Your task to perform on an android device: Open notification settings Image 0: 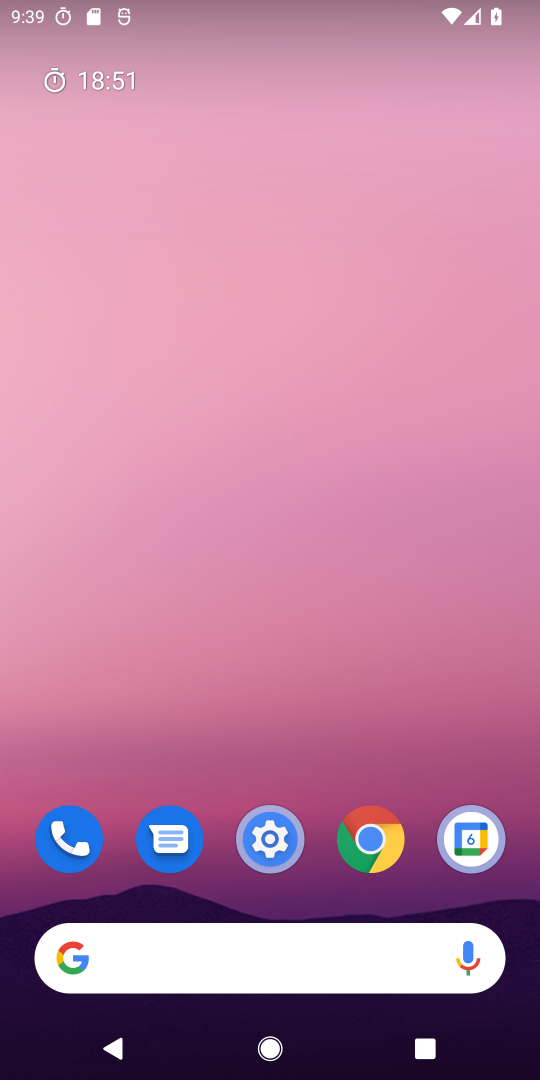
Step 0: press home button
Your task to perform on an android device: Open notification settings Image 1: 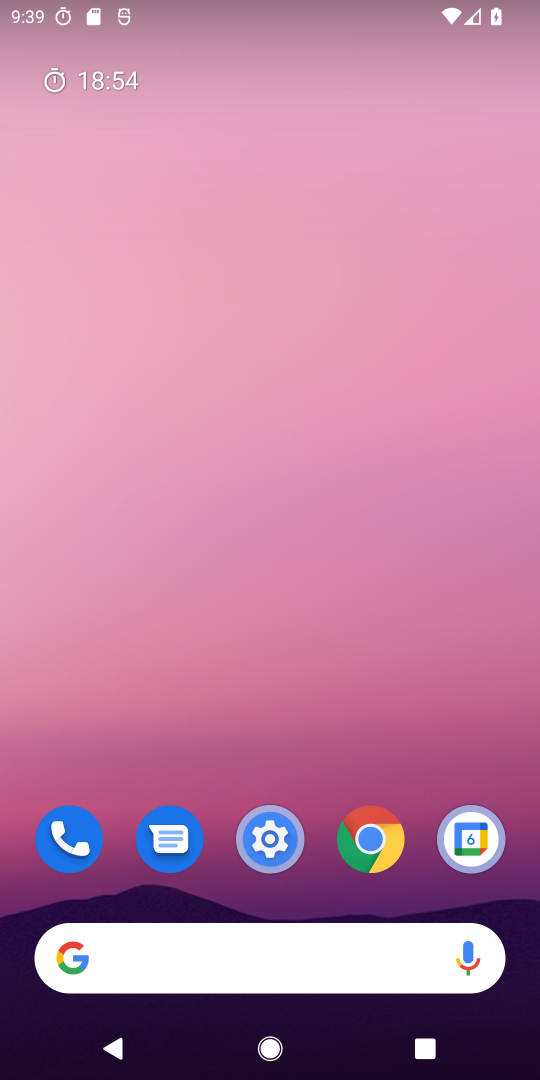
Step 1: click (280, 839)
Your task to perform on an android device: Open notification settings Image 2: 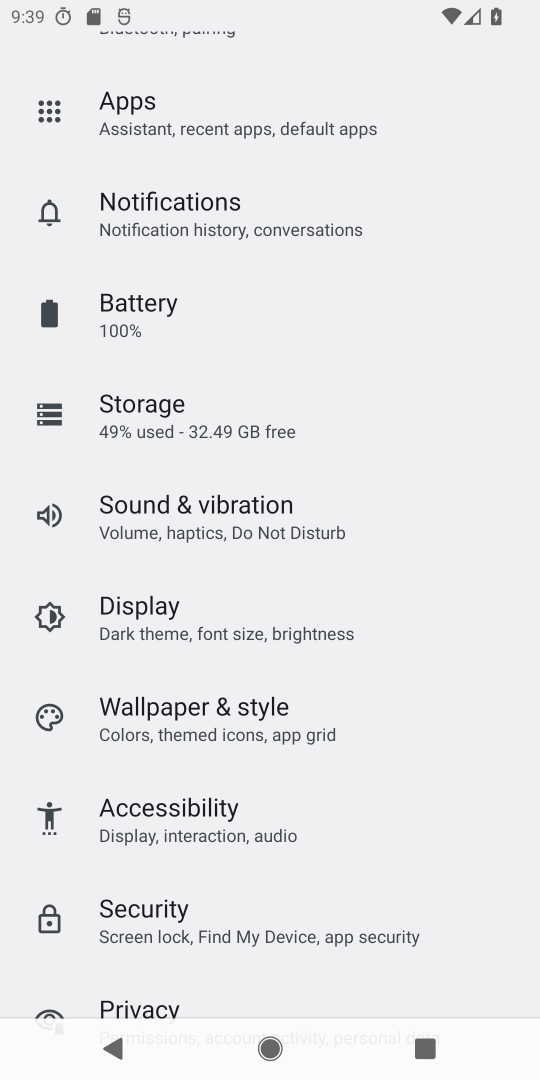
Step 2: click (196, 193)
Your task to perform on an android device: Open notification settings Image 3: 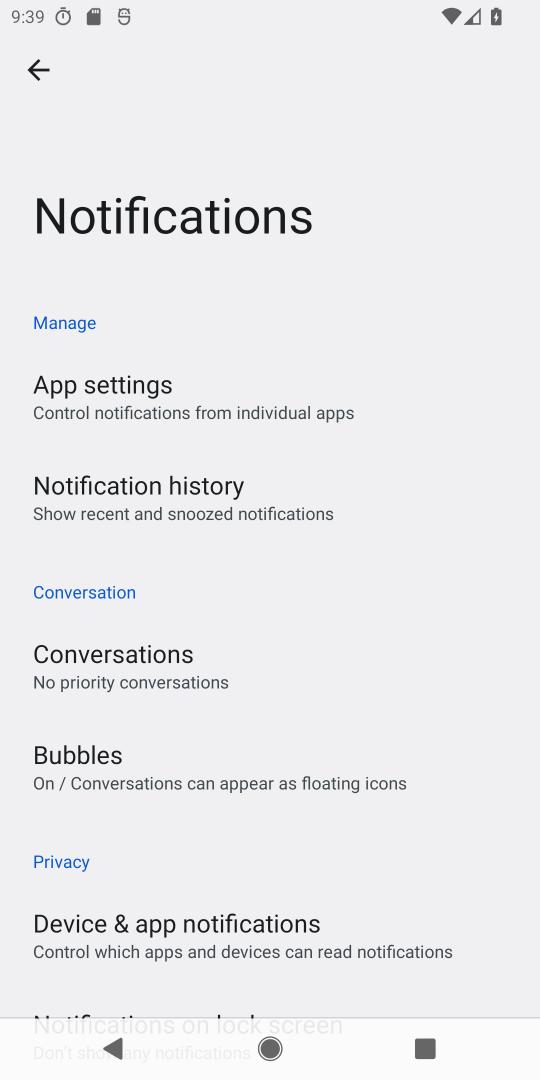
Step 3: task complete